Your task to perform on an android device: Add acer predator to the cart on target Image 0: 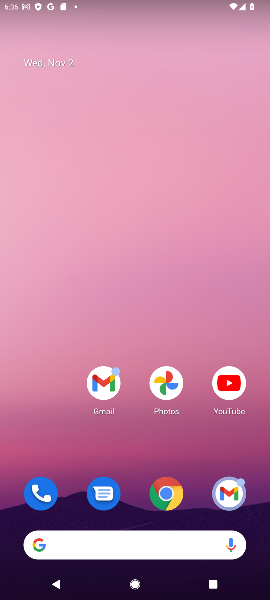
Step 0: drag from (88, 532) to (84, 144)
Your task to perform on an android device: Add acer predator to the cart on target Image 1: 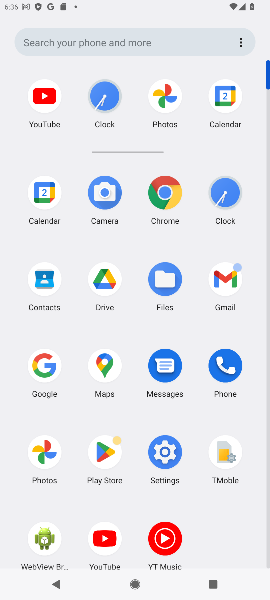
Step 1: click (36, 357)
Your task to perform on an android device: Add acer predator to the cart on target Image 2: 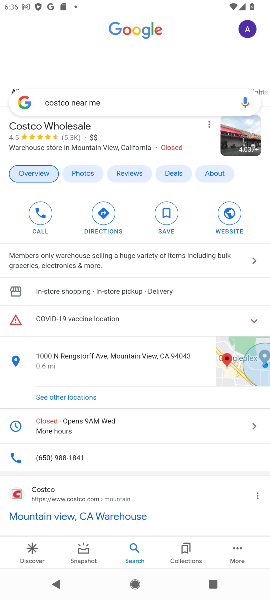
Step 2: click (76, 98)
Your task to perform on an android device: Add acer predator to the cart on target Image 3: 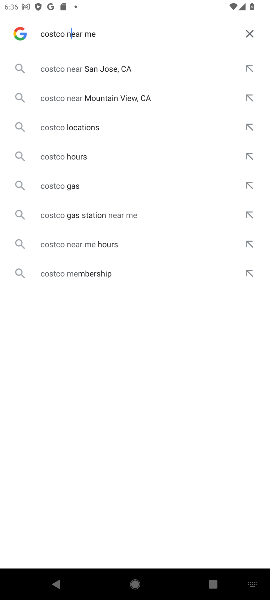
Step 3: click (245, 34)
Your task to perform on an android device: Add acer predator to the cart on target Image 4: 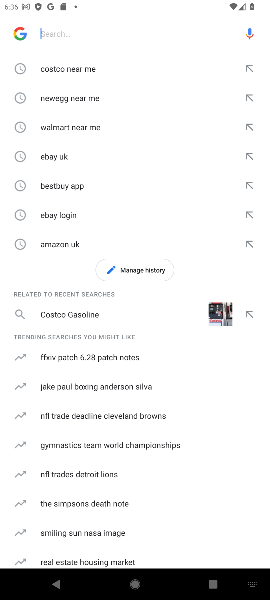
Step 4: click (67, 28)
Your task to perform on an android device: Add acer predator to the cart on target Image 5: 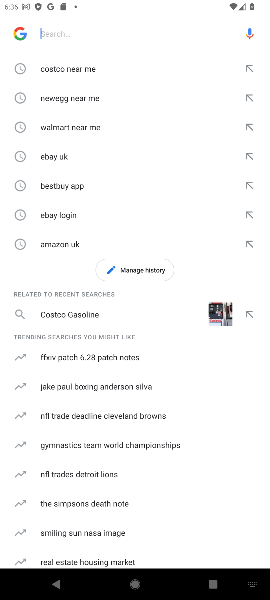
Step 5: type "target "
Your task to perform on an android device: Add acer predator to the cart on target Image 6: 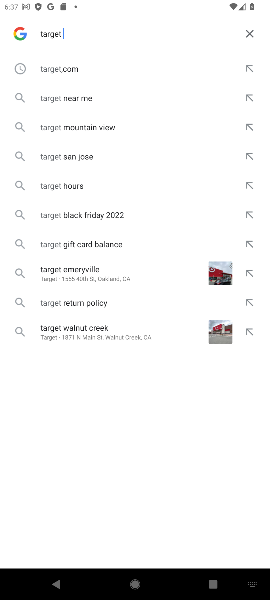
Step 6: click (59, 65)
Your task to perform on an android device: Add acer predator to the cart on target Image 7: 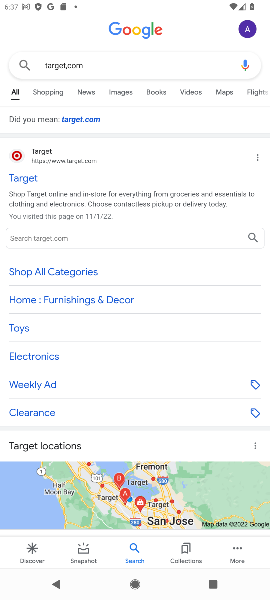
Step 7: click (19, 173)
Your task to perform on an android device: Add acer predator to the cart on target Image 8: 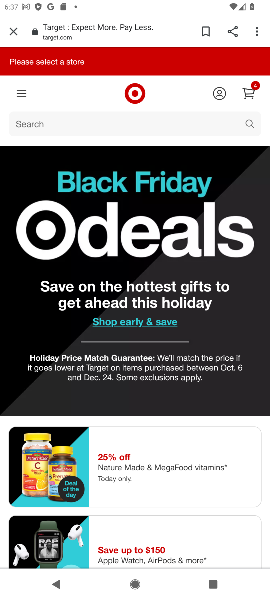
Step 8: click (27, 118)
Your task to perform on an android device: Add acer predator to the cart on target Image 9: 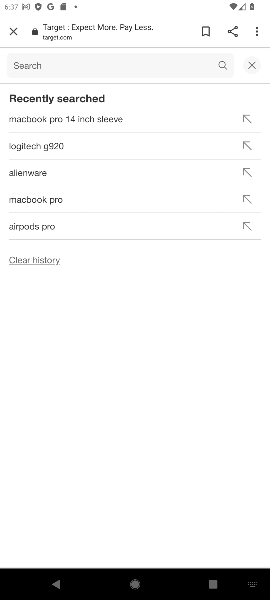
Step 9: click (95, 61)
Your task to perform on an android device: Add acer predator to the cart on target Image 10: 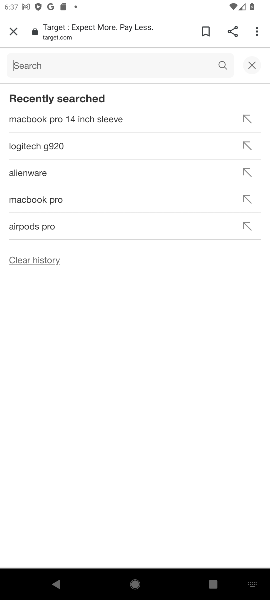
Step 10: type "acer predator "
Your task to perform on an android device: Add acer predator to the cart on target Image 11: 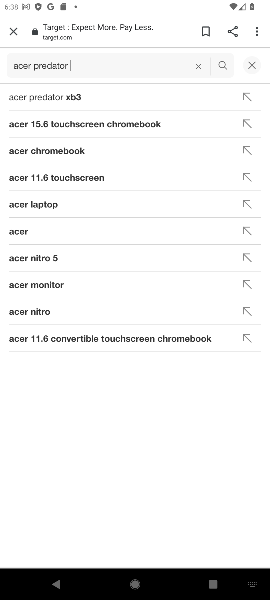
Step 11: click (43, 93)
Your task to perform on an android device: Add acer predator to the cart on target Image 12: 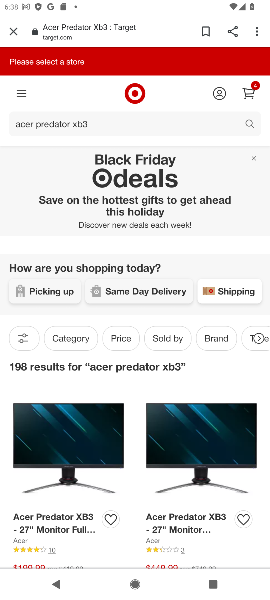
Step 12: drag from (107, 548) to (105, 391)
Your task to perform on an android device: Add acer predator to the cart on target Image 13: 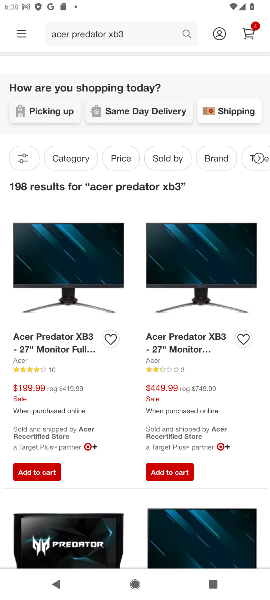
Step 13: click (29, 465)
Your task to perform on an android device: Add acer predator to the cart on target Image 14: 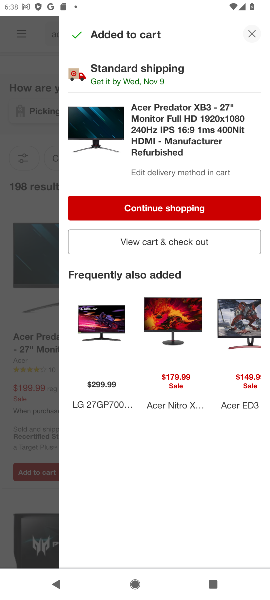
Step 14: task complete